Your task to perform on an android device: toggle location history Image 0: 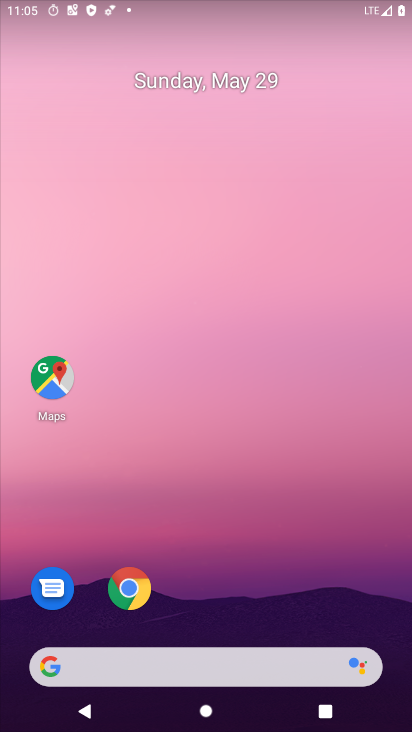
Step 0: drag from (49, 579) to (297, 191)
Your task to perform on an android device: toggle location history Image 1: 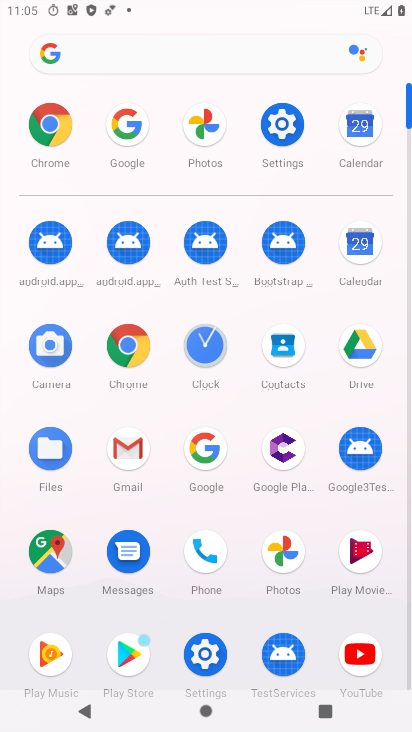
Step 1: click (293, 122)
Your task to perform on an android device: toggle location history Image 2: 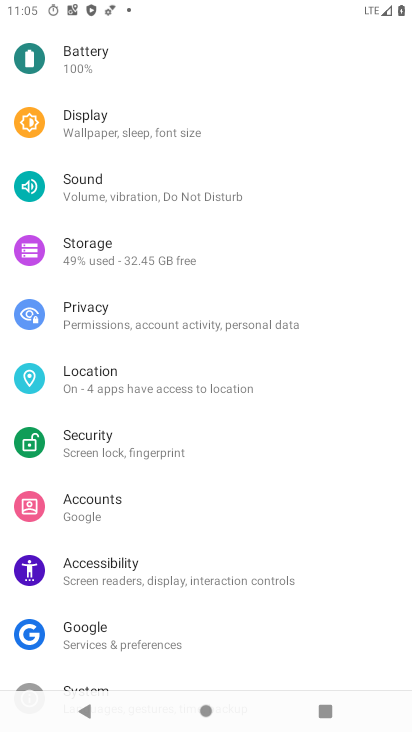
Step 2: click (123, 387)
Your task to perform on an android device: toggle location history Image 3: 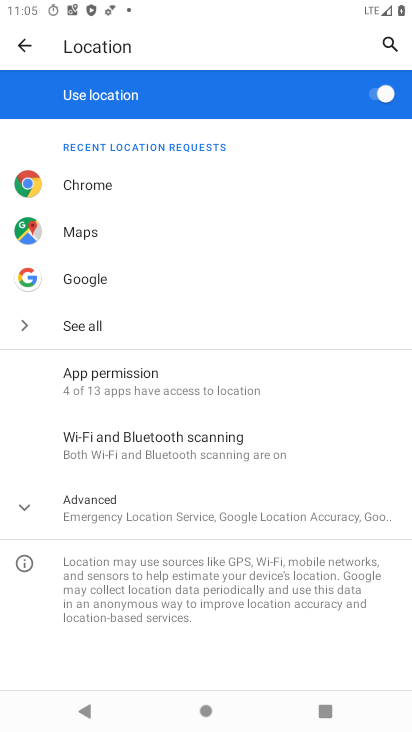
Step 3: click (148, 498)
Your task to perform on an android device: toggle location history Image 4: 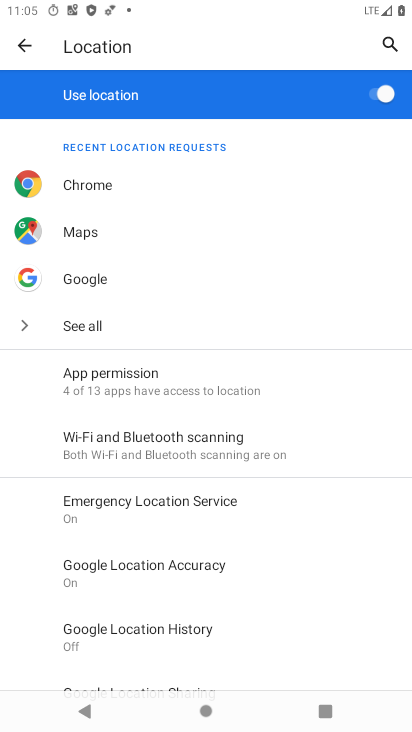
Step 4: click (205, 635)
Your task to perform on an android device: toggle location history Image 5: 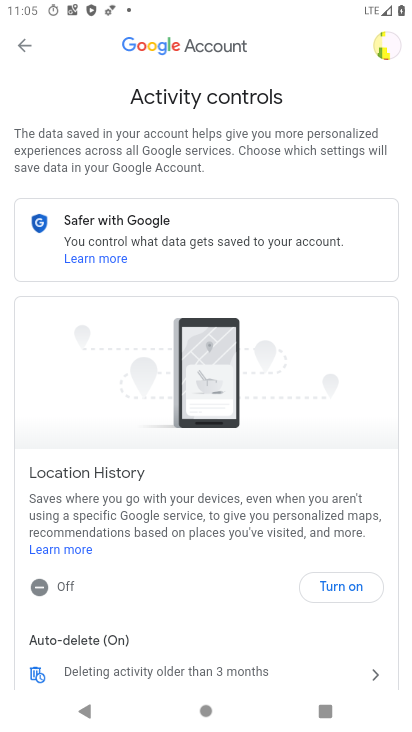
Step 5: click (313, 584)
Your task to perform on an android device: toggle location history Image 6: 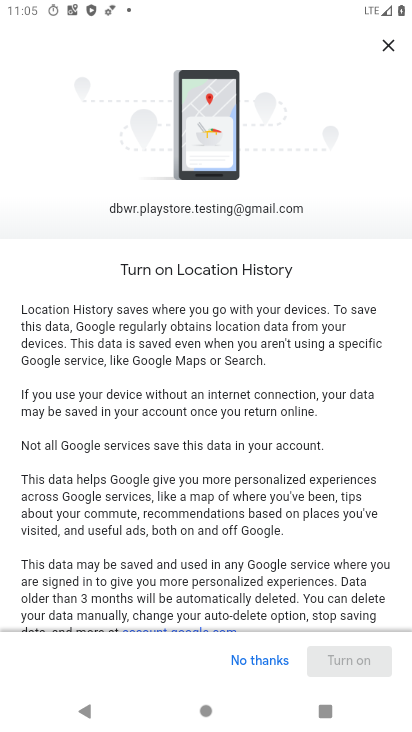
Step 6: drag from (22, 598) to (349, 146)
Your task to perform on an android device: toggle location history Image 7: 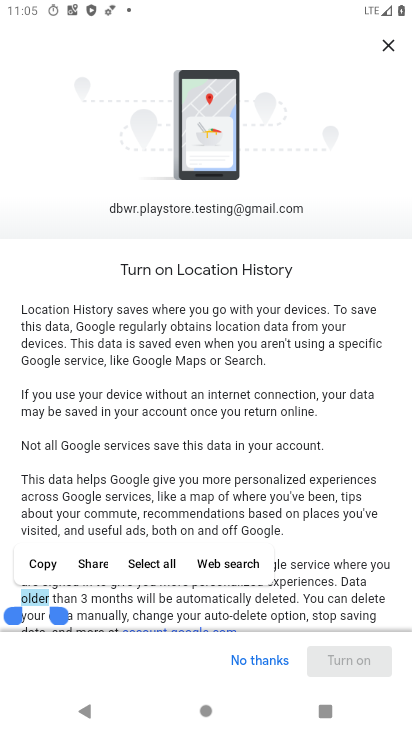
Step 7: drag from (50, 539) to (293, 123)
Your task to perform on an android device: toggle location history Image 8: 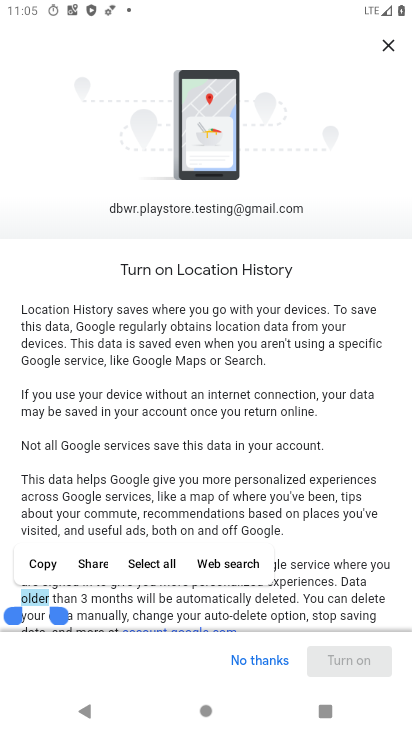
Step 8: drag from (40, 436) to (245, 121)
Your task to perform on an android device: toggle location history Image 9: 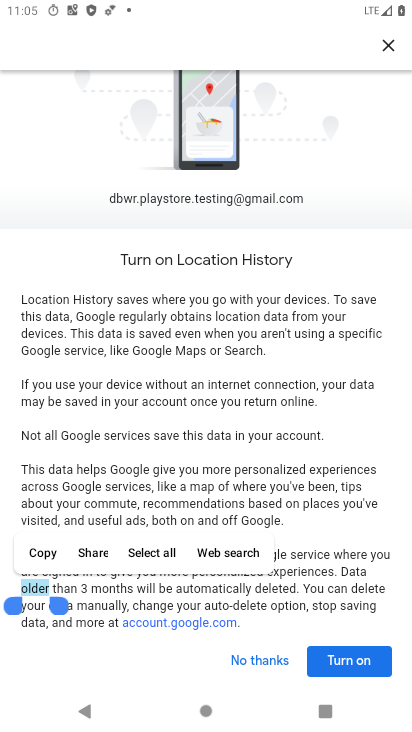
Step 9: click (338, 670)
Your task to perform on an android device: toggle location history Image 10: 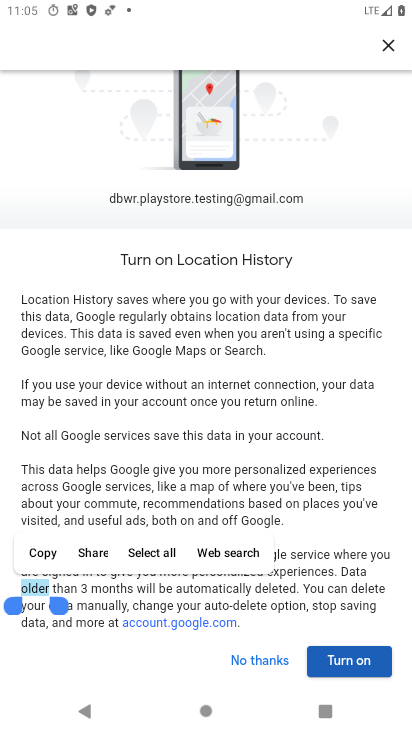
Step 10: click (333, 666)
Your task to perform on an android device: toggle location history Image 11: 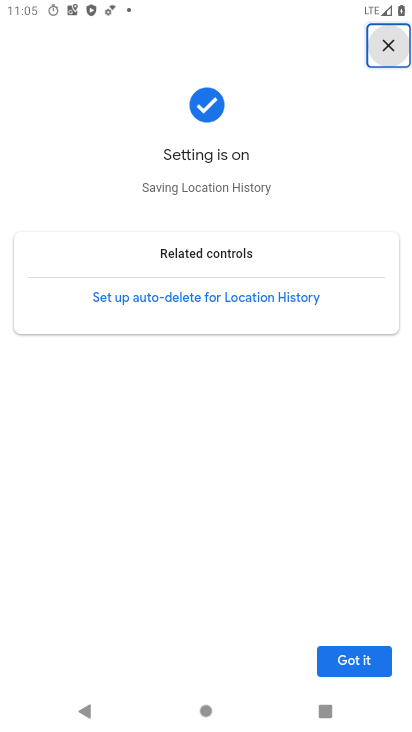
Step 11: click (357, 660)
Your task to perform on an android device: toggle location history Image 12: 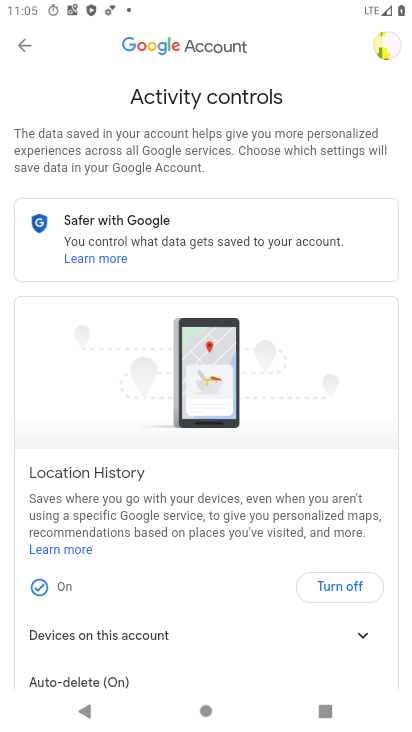
Step 12: task complete